Your task to perform on an android device: turn off improve location accuracy Image 0: 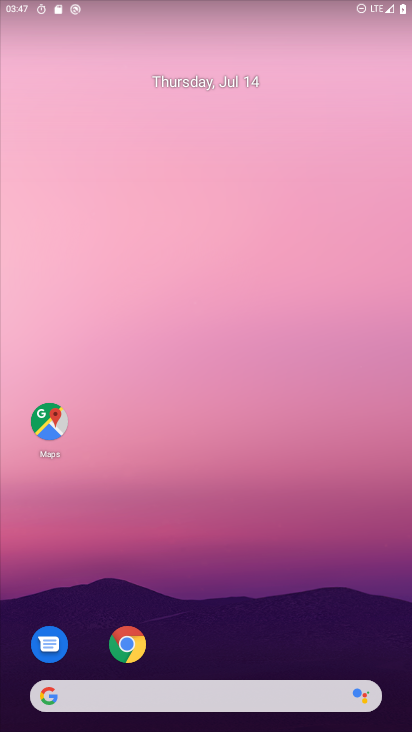
Step 0: drag from (291, 628) to (288, 90)
Your task to perform on an android device: turn off improve location accuracy Image 1: 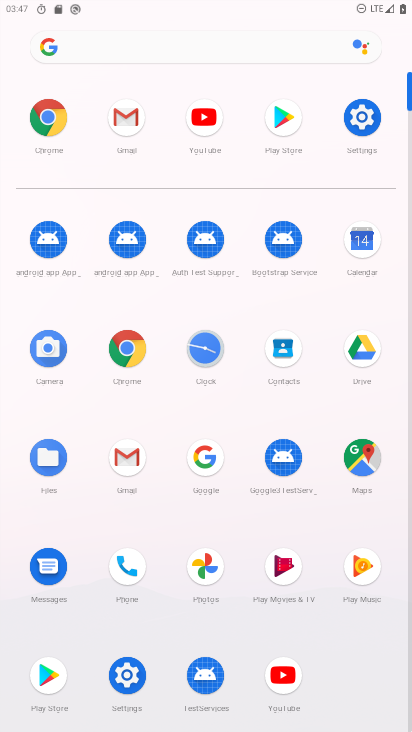
Step 1: click (364, 123)
Your task to perform on an android device: turn off improve location accuracy Image 2: 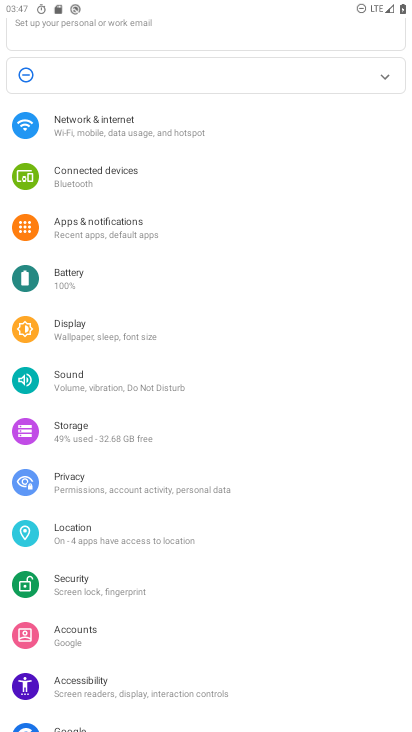
Step 2: click (114, 542)
Your task to perform on an android device: turn off improve location accuracy Image 3: 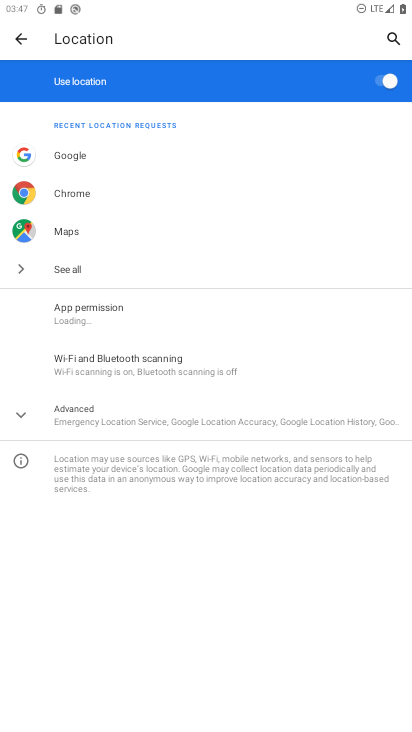
Step 3: click (131, 426)
Your task to perform on an android device: turn off improve location accuracy Image 4: 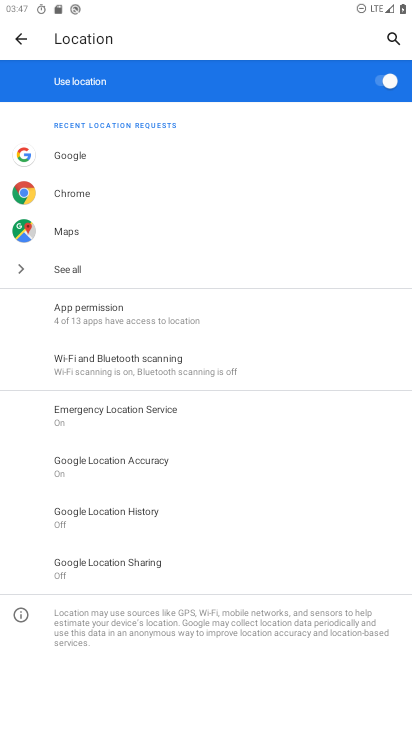
Step 4: click (139, 474)
Your task to perform on an android device: turn off improve location accuracy Image 5: 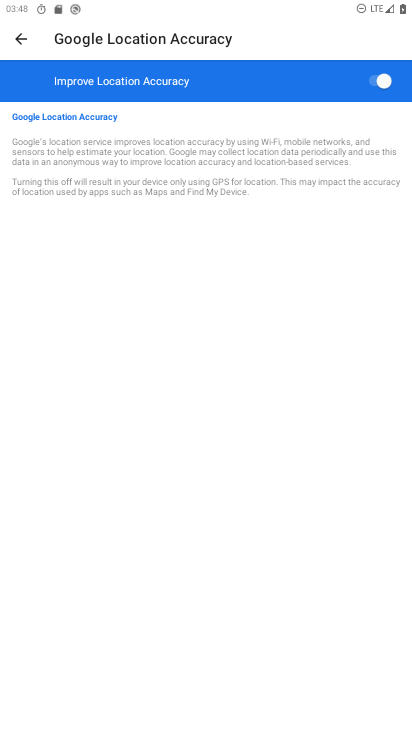
Step 5: click (366, 84)
Your task to perform on an android device: turn off improve location accuracy Image 6: 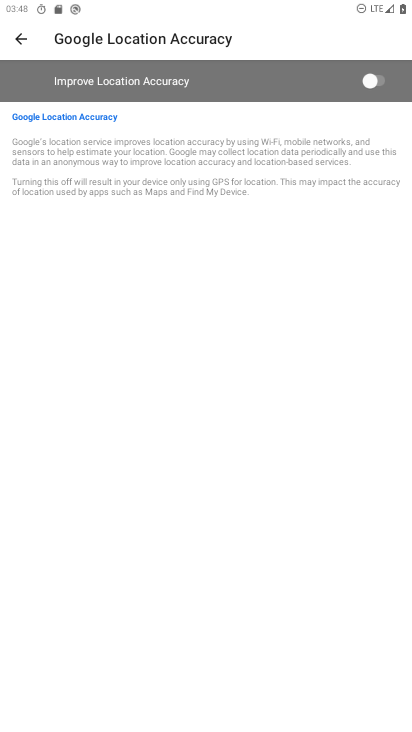
Step 6: task complete